Your task to perform on an android device: Go to battery settings Image 0: 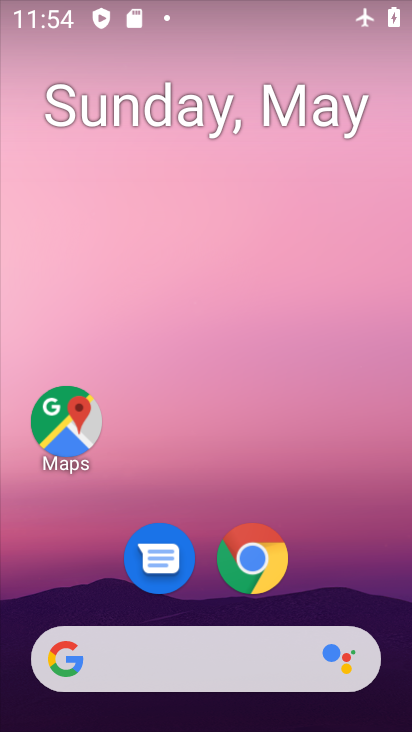
Step 0: drag from (342, 579) to (348, 81)
Your task to perform on an android device: Go to battery settings Image 1: 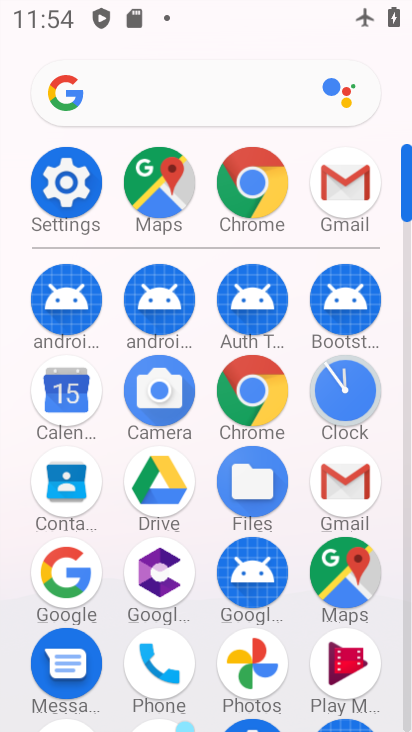
Step 1: click (83, 172)
Your task to perform on an android device: Go to battery settings Image 2: 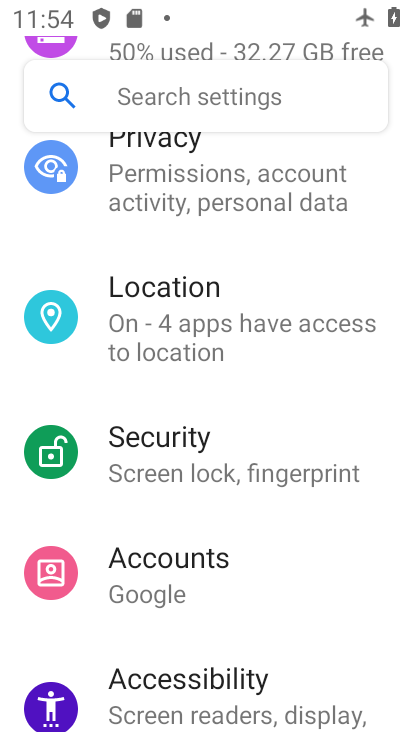
Step 2: drag from (392, 235) to (378, 472)
Your task to perform on an android device: Go to battery settings Image 3: 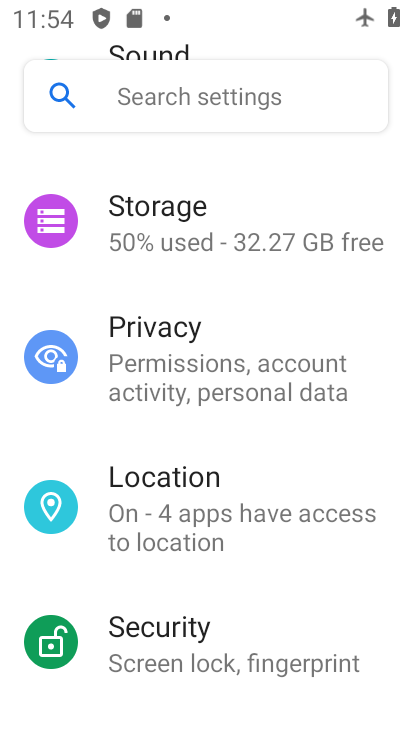
Step 3: drag from (379, 280) to (377, 567)
Your task to perform on an android device: Go to battery settings Image 4: 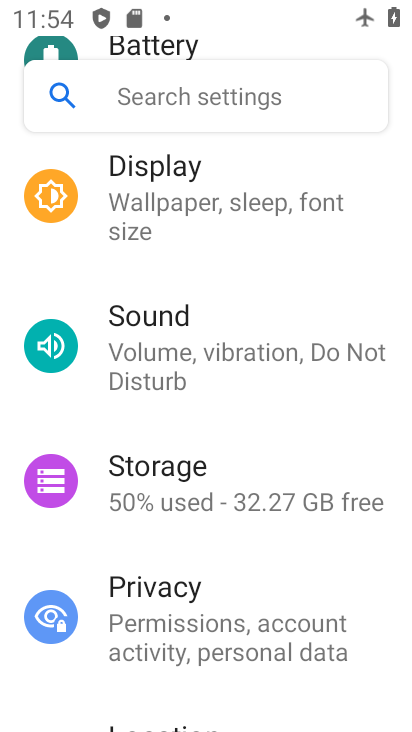
Step 4: drag from (376, 246) to (375, 523)
Your task to perform on an android device: Go to battery settings Image 5: 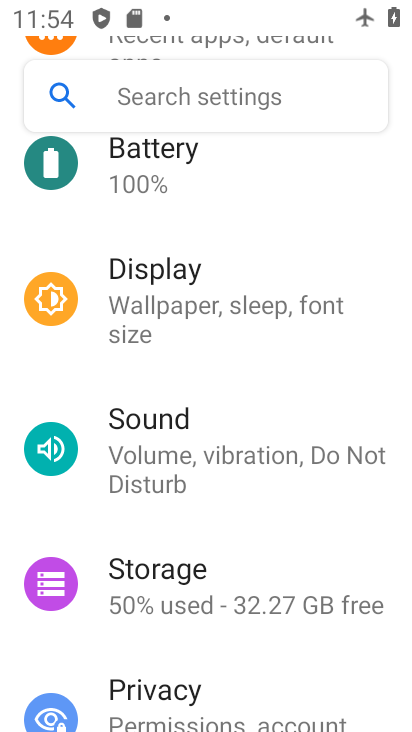
Step 5: click (200, 171)
Your task to perform on an android device: Go to battery settings Image 6: 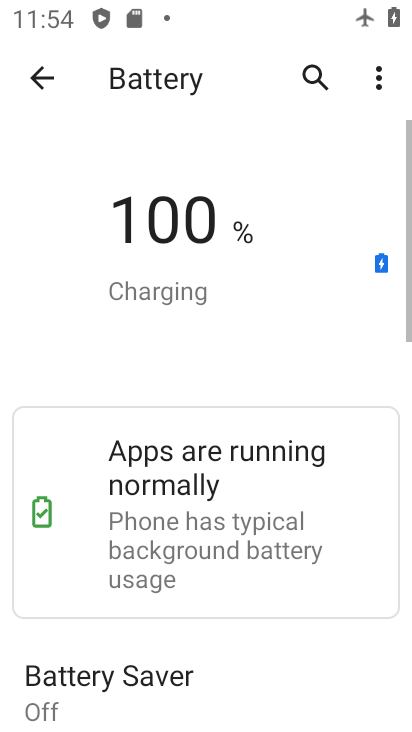
Step 6: task complete